Your task to perform on an android device: turn off picture-in-picture Image 0: 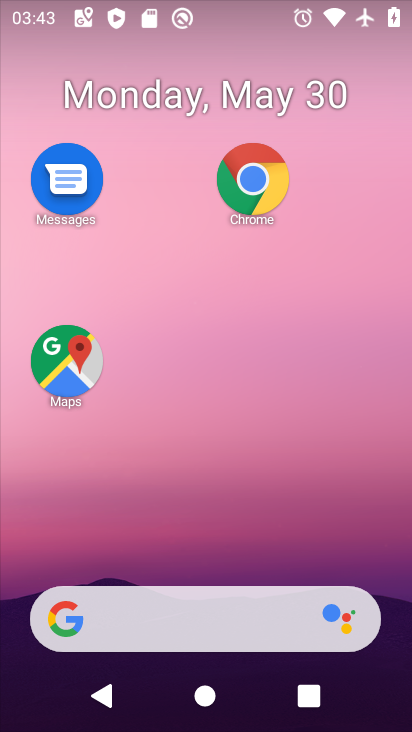
Step 0: drag from (169, 559) to (392, 3)
Your task to perform on an android device: turn off picture-in-picture Image 1: 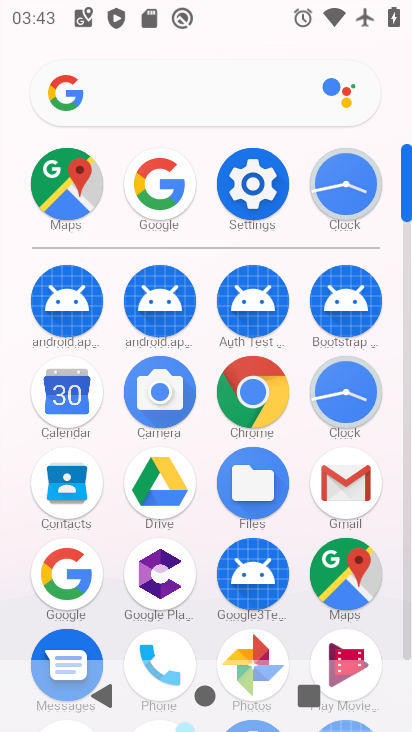
Step 1: click (246, 189)
Your task to perform on an android device: turn off picture-in-picture Image 2: 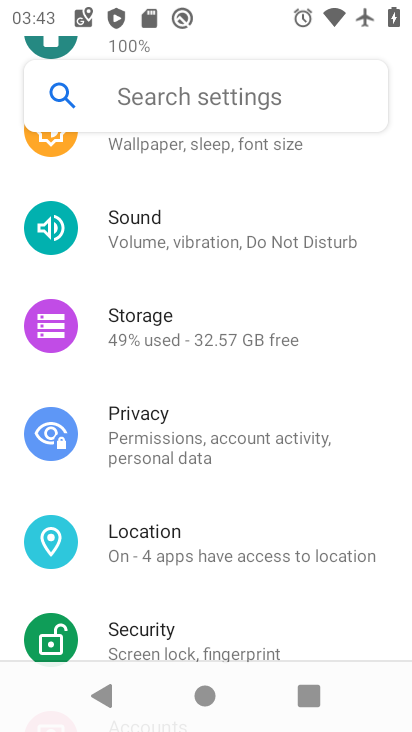
Step 2: drag from (209, 182) to (167, 474)
Your task to perform on an android device: turn off picture-in-picture Image 3: 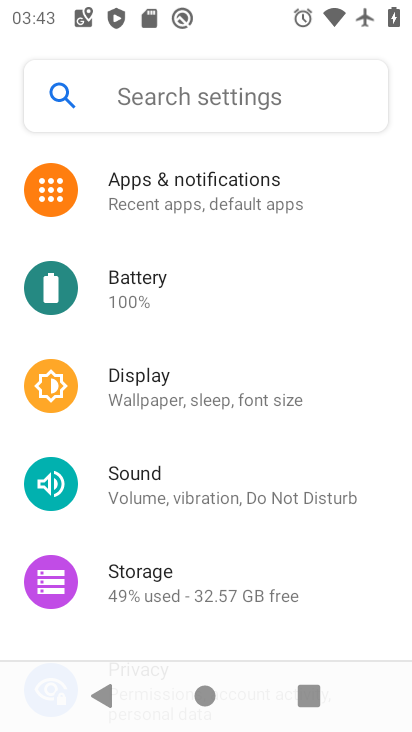
Step 3: click (296, 210)
Your task to perform on an android device: turn off picture-in-picture Image 4: 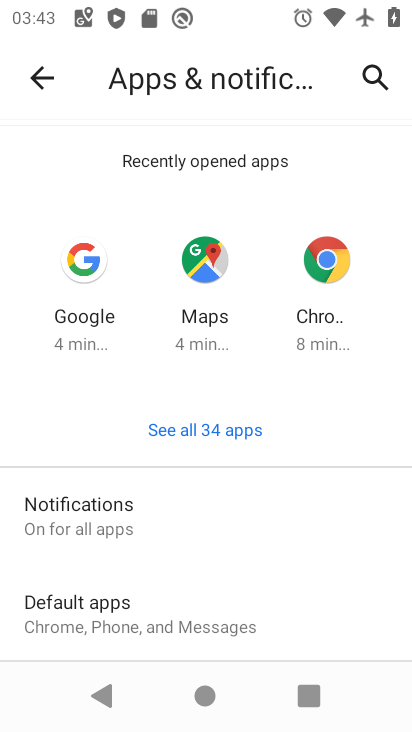
Step 4: drag from (147, 481) to (264, 201)
Your task to perform on an android device: turn off picture-in-picture Image 5: 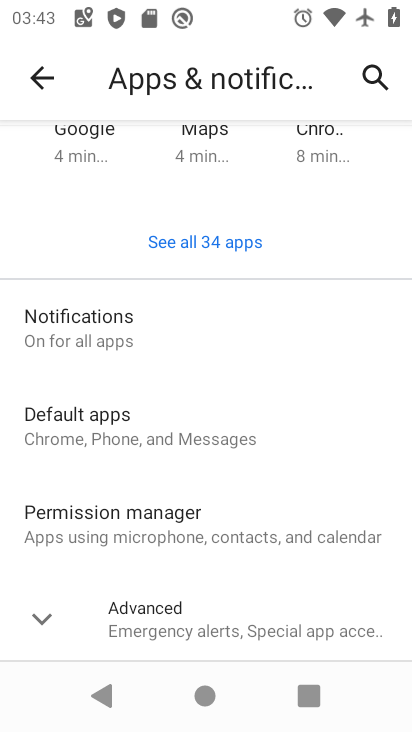
Step 5: click (174, 641)
Your task to perform on an android device: turn off picture-in-picture Image 6: 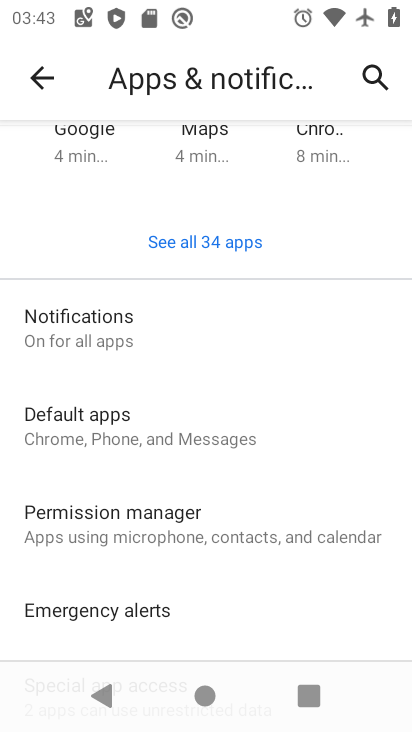
Step 6: drag from (156, 610) to (239, 190)
Your task to perform on an android device: turn off picture-in-picture Image 7: 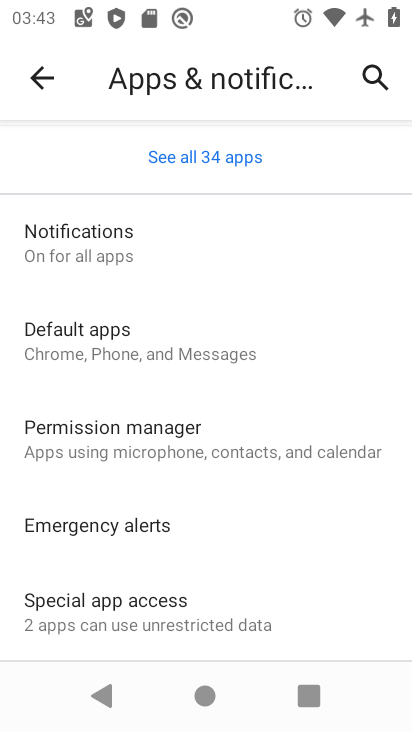
Step 7: click (95, 626)
Your task to perform on an android device: turn off picture-in-picture Image 8: 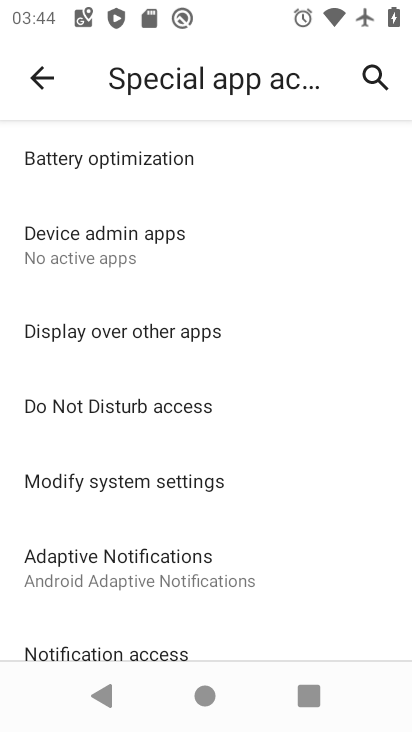
Step 8: drag from (169, 616) to (243, 302)
Your task to perform on an android device: turn off picture-in-picture Image 9: 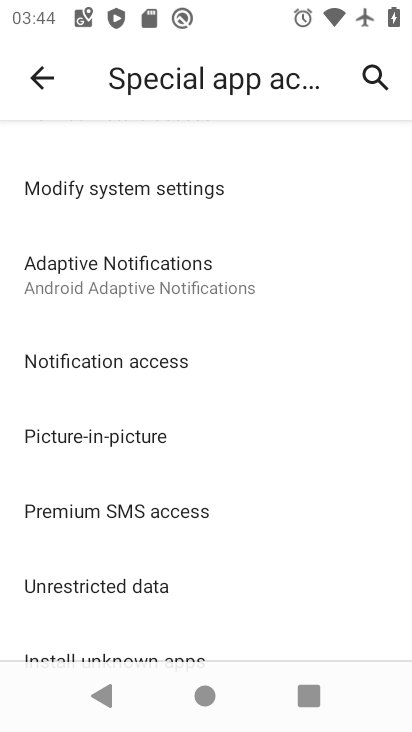
Step 9: click (157, 434)
Your task to perform on an android device: turn off picture-in-picture Image 10: 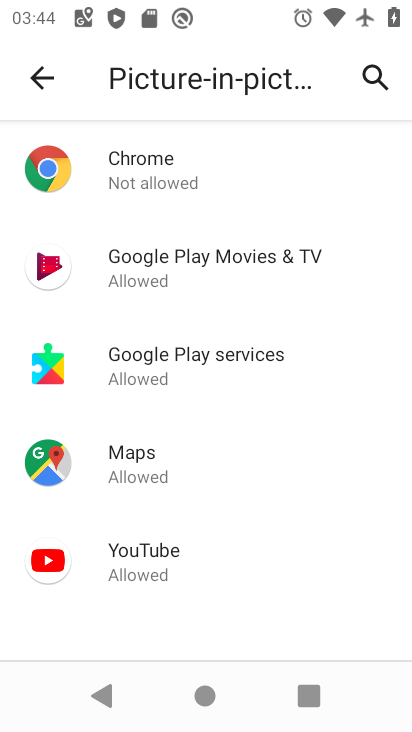
Step 10: click (161, 173)
Your task to perform on an android device: turn off picture-in-picture Image 11: 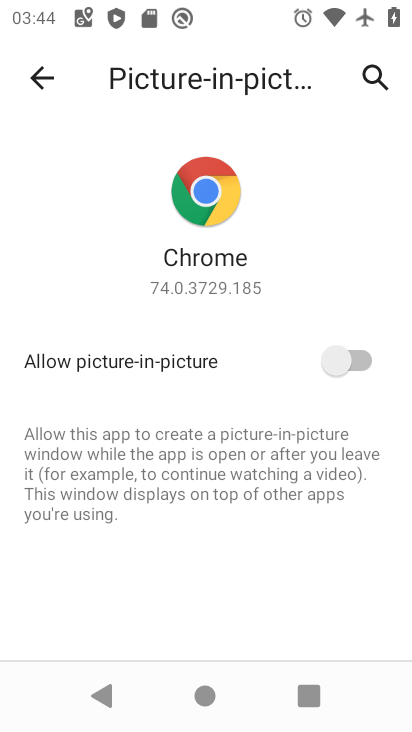
Step 11: task complete